Your task to perform on an android device: toggle show notifications on the lock screen Image 0: 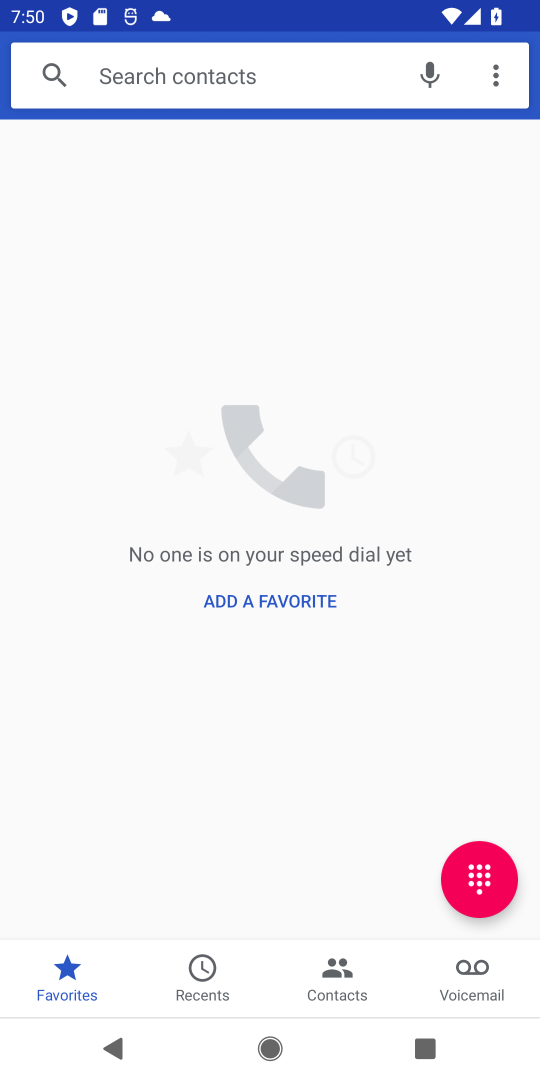
Step 0: press home button
Your task to perform on an android device: toggle show notifications on the lock screen Image 1: 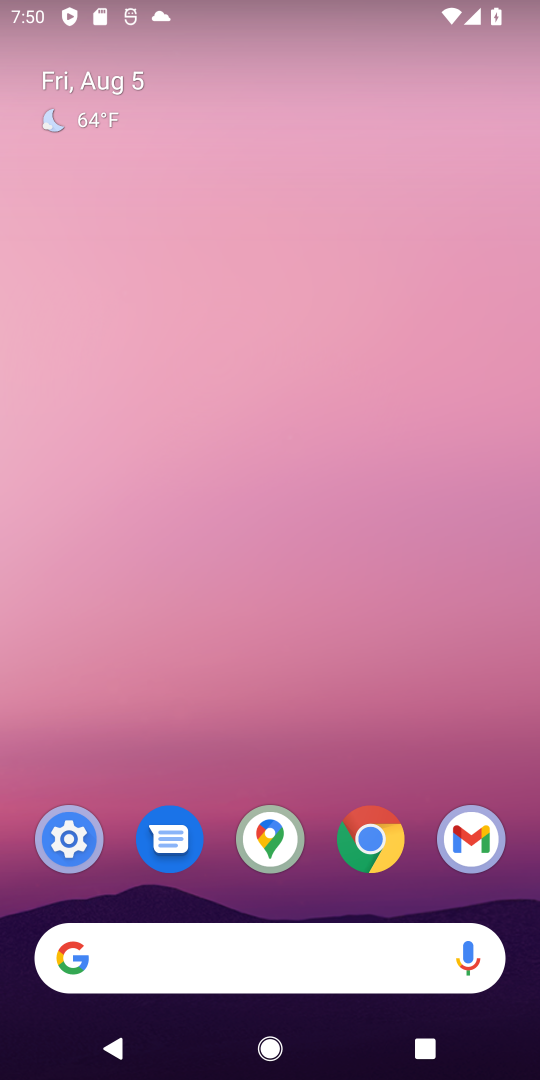
Step 1: drag from (326, 730) to (326, 112)
Your task to perform on an android device: toggle show notifications on the lock screen Image 2: 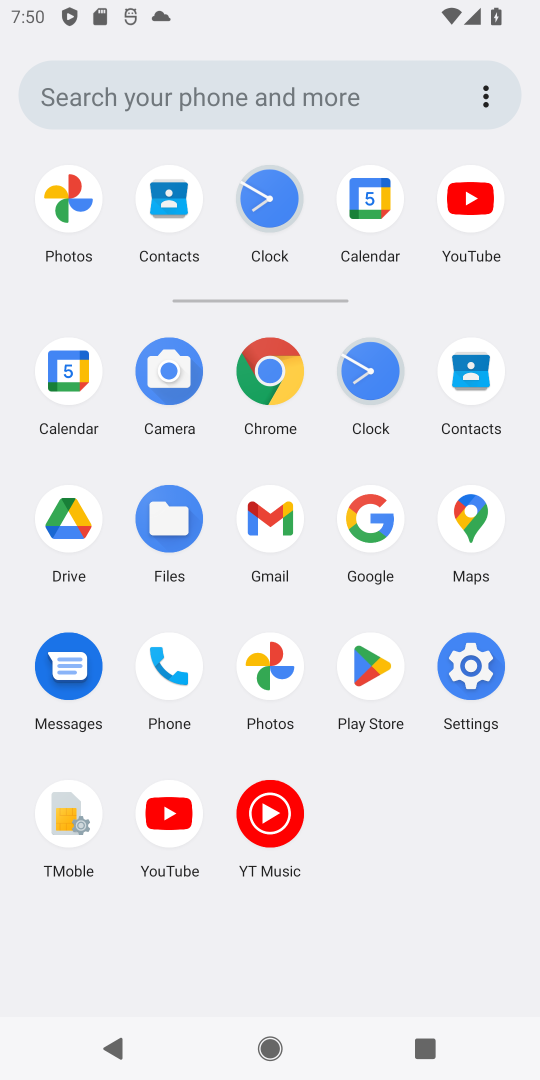
Step 2: click (486, 666)
Your task to perform on an android device: toggle show notifications on the lock screen Image 3: 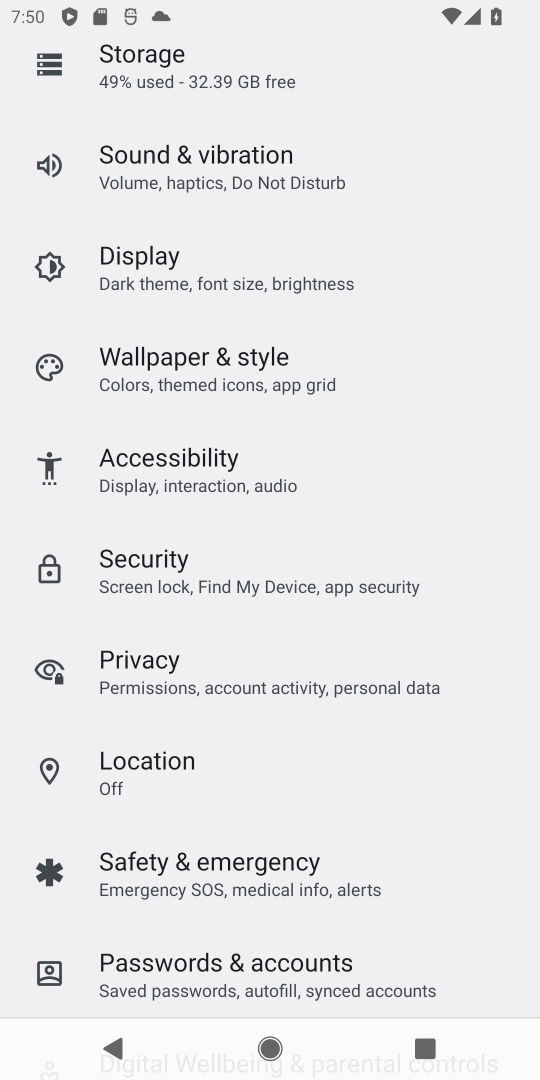
Step 3: drag from (210, 249) to (242, 907)
Your task to perform on an android device: toggle show notifications on the lock screen Image 4: 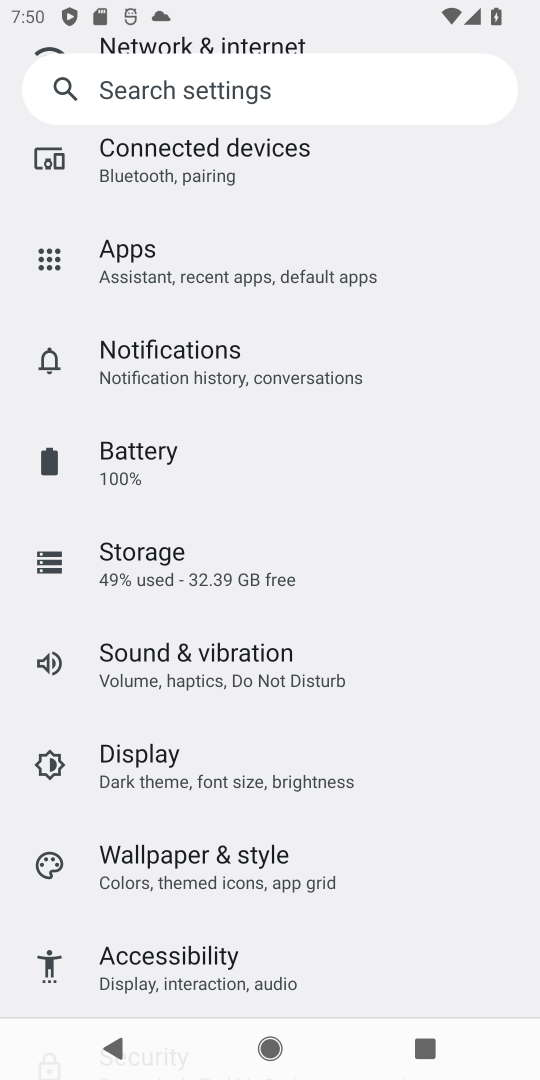
Step 4: drag from (206, 154) to (181, 662)
Your task to perform on an android device: toggle show notifications on the lock screen Image 5: 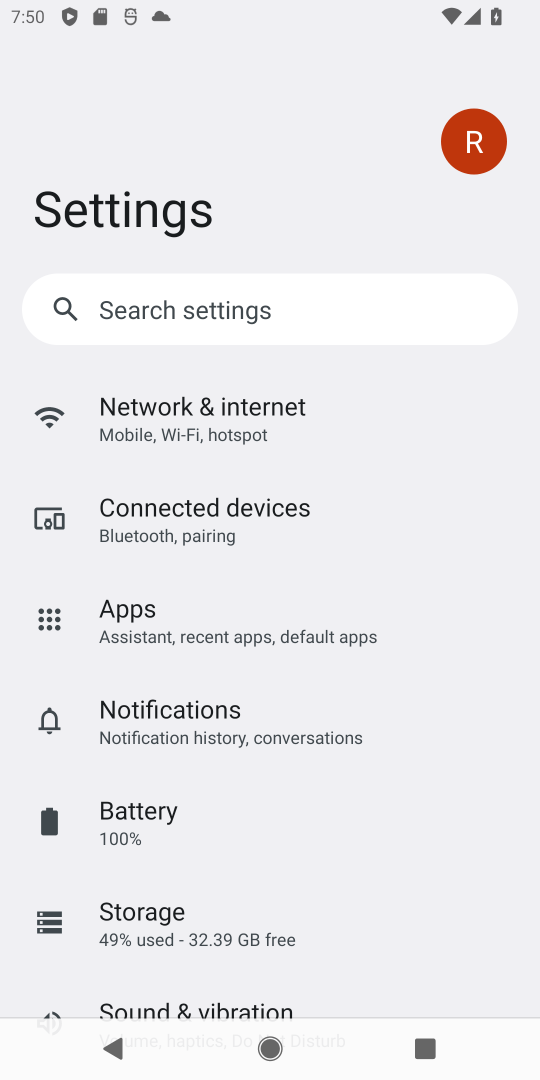
Step 5: click (169, 709)
Your task to perform on an android device: toggle show notifications on the lock screen Image 6: 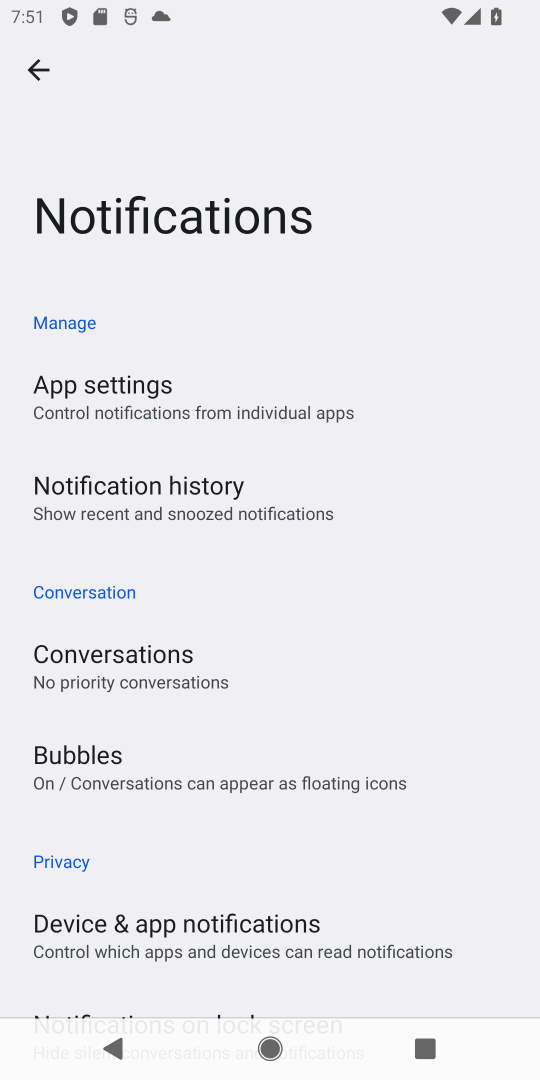
Step 6: drag from (173, 848) to (166, 277)
Your task to perform on an android device: toggle show notifications on the lock screen Image 7: 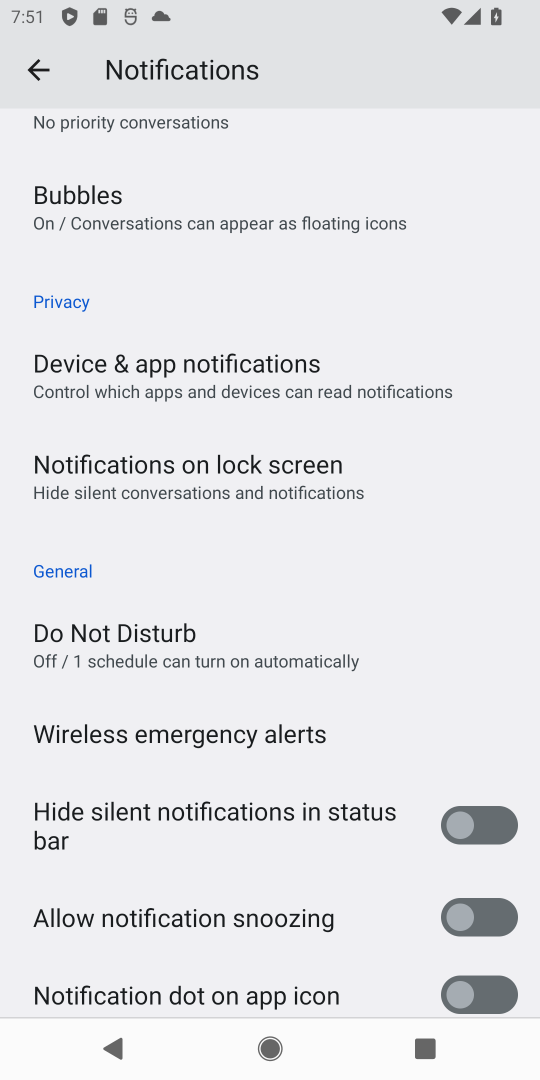
Step 7: click (183, 468)
Your task to perform on an android device: toggle show notifications on the lock screen Image 8: 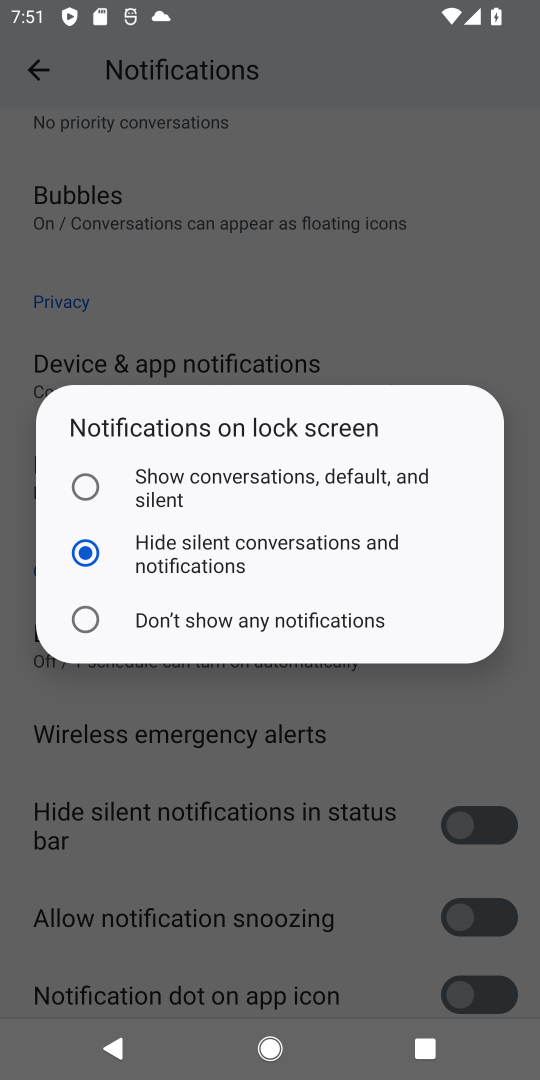
Step 8: click (89, 486)
Your task to perform on an android device: toggle show notifications on the lock screen Image 9: 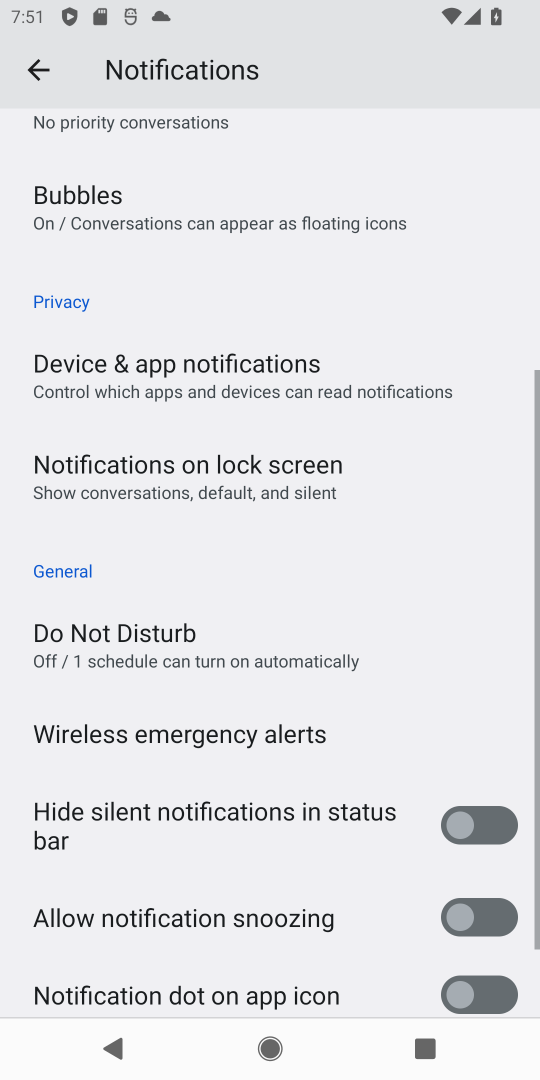
Step 9: task complete